Your task to perform on an android device: check google app version Image 0: 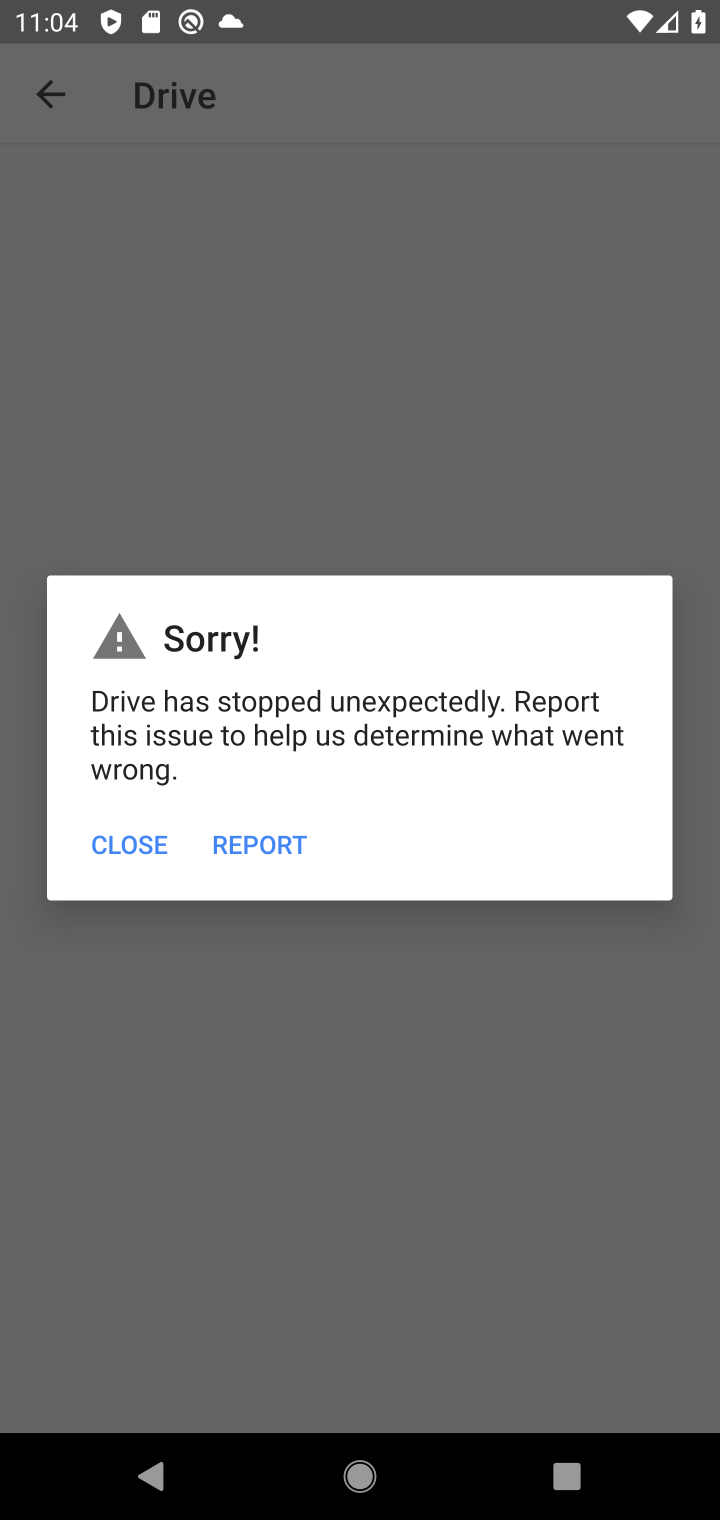
Step 0: press home button
Your task to perform on an android device: check google app version Image 1: 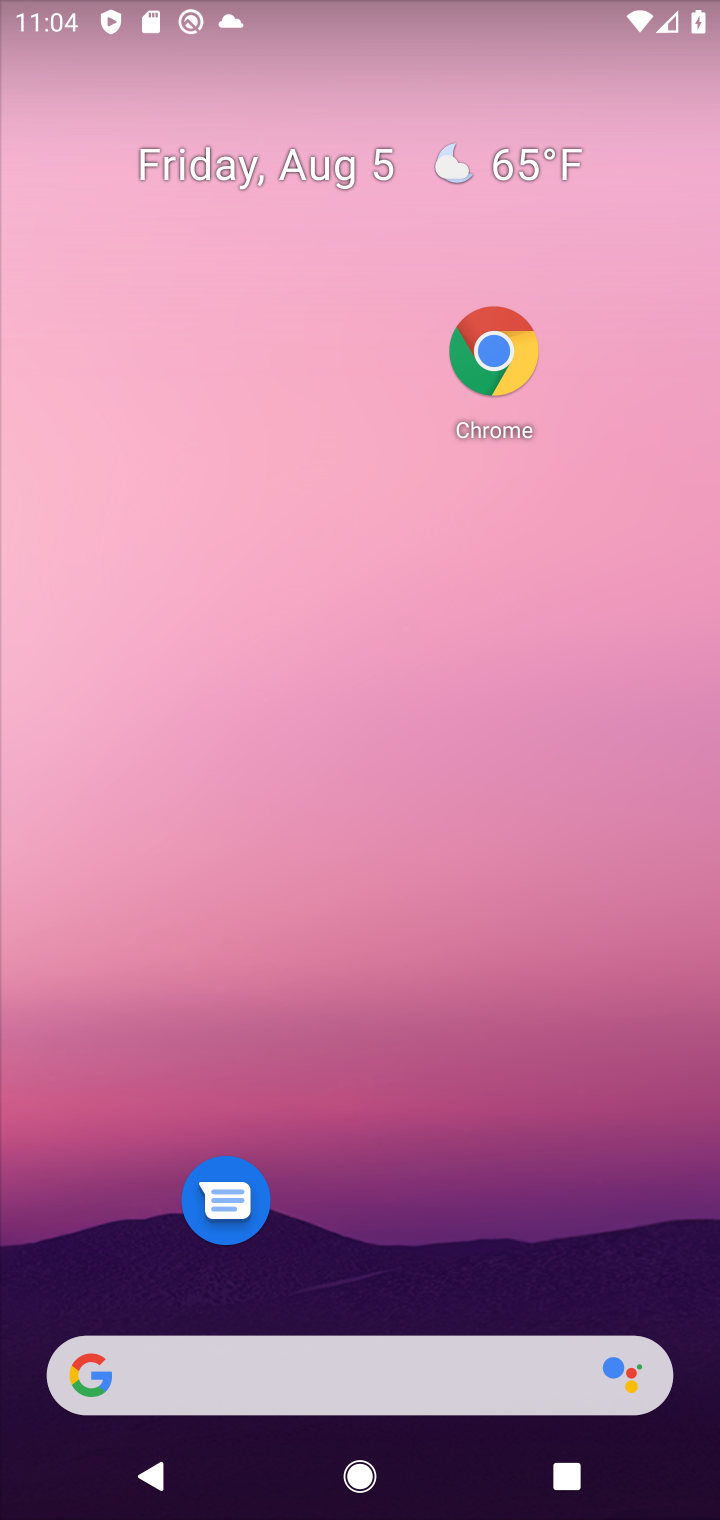
Step 1: drag from (414, 1326) to (486, 171)
Your task to perform on an android device: check google app version Image 2: 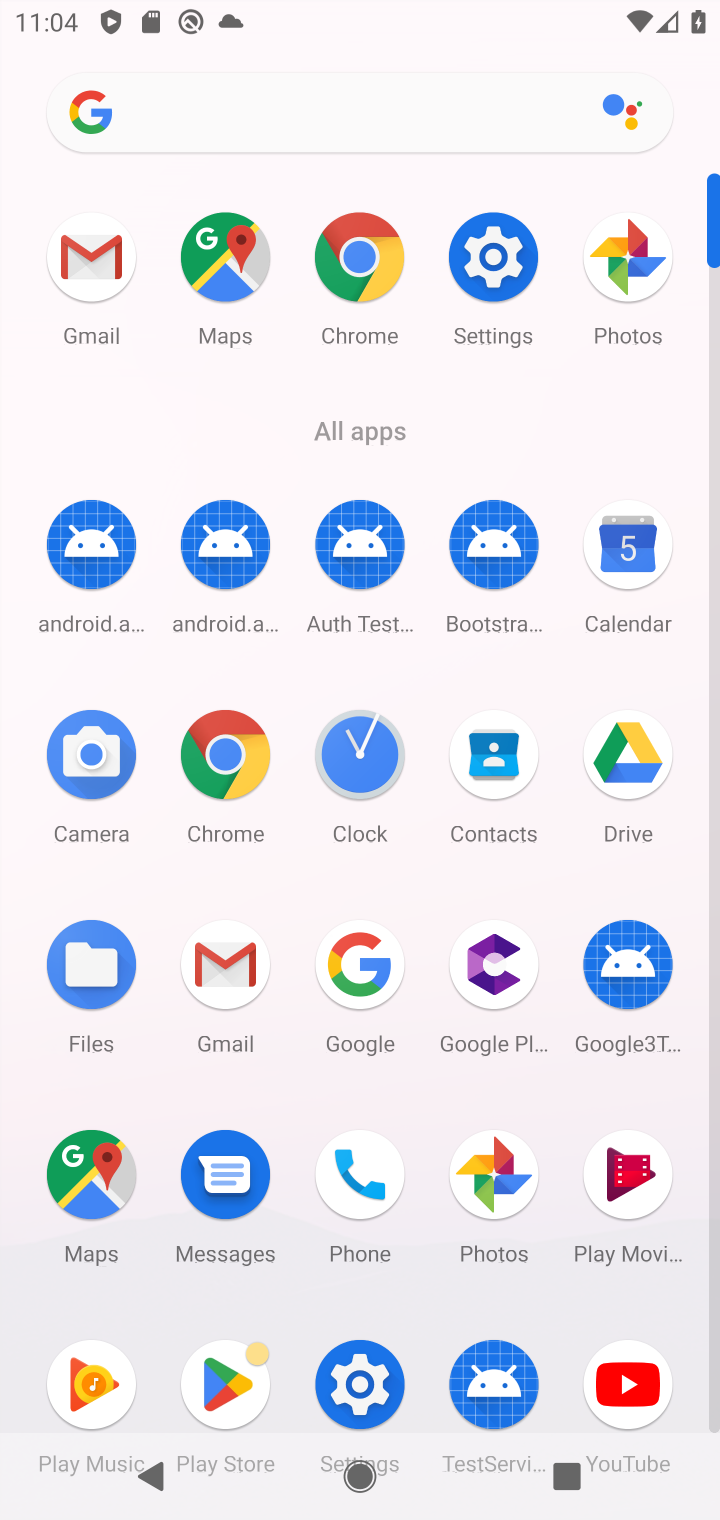
Step 2: click (472, 296)
Your task to perform on an android device: check google app version Image 3: 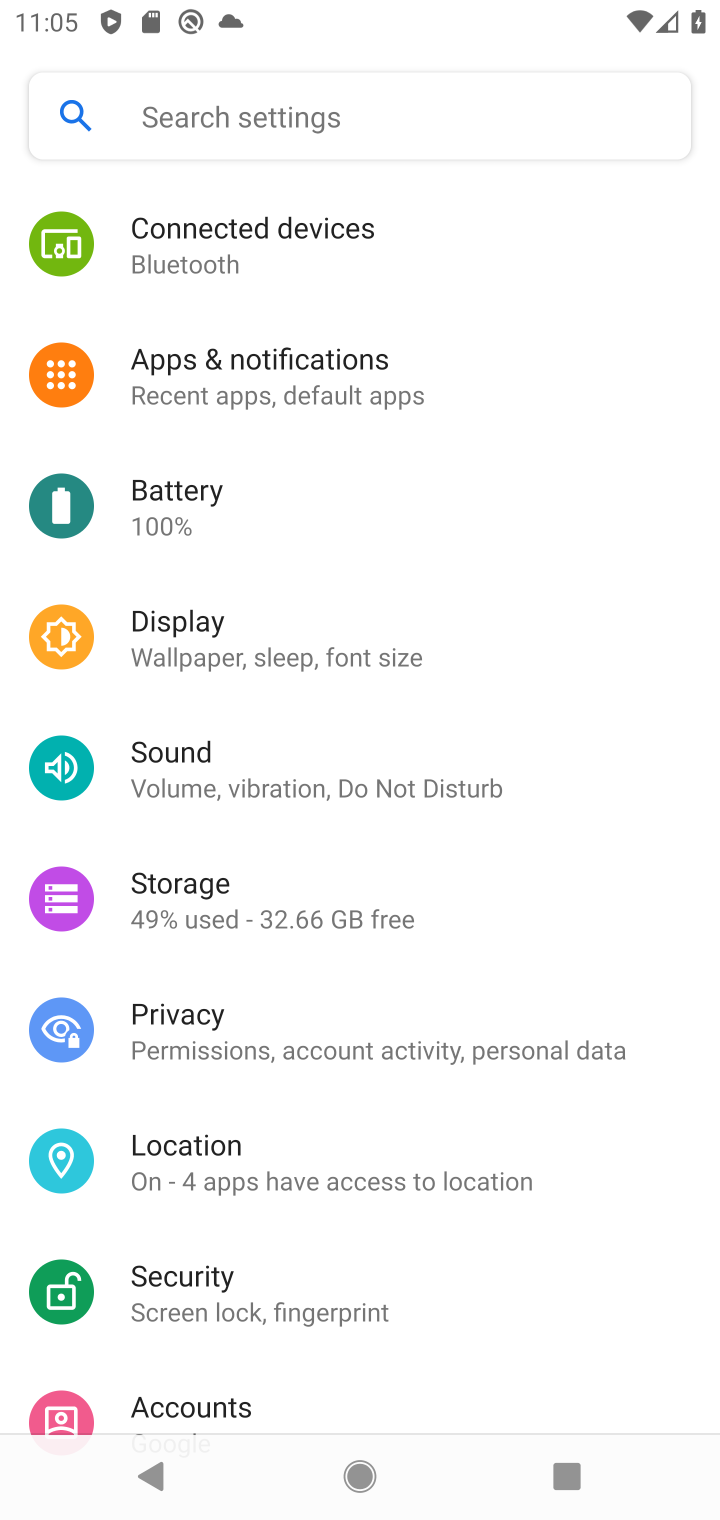
Step 3: drag from (306, 1100) to (383, 346)
Your task to perform on an android device: check google app version Image 4: 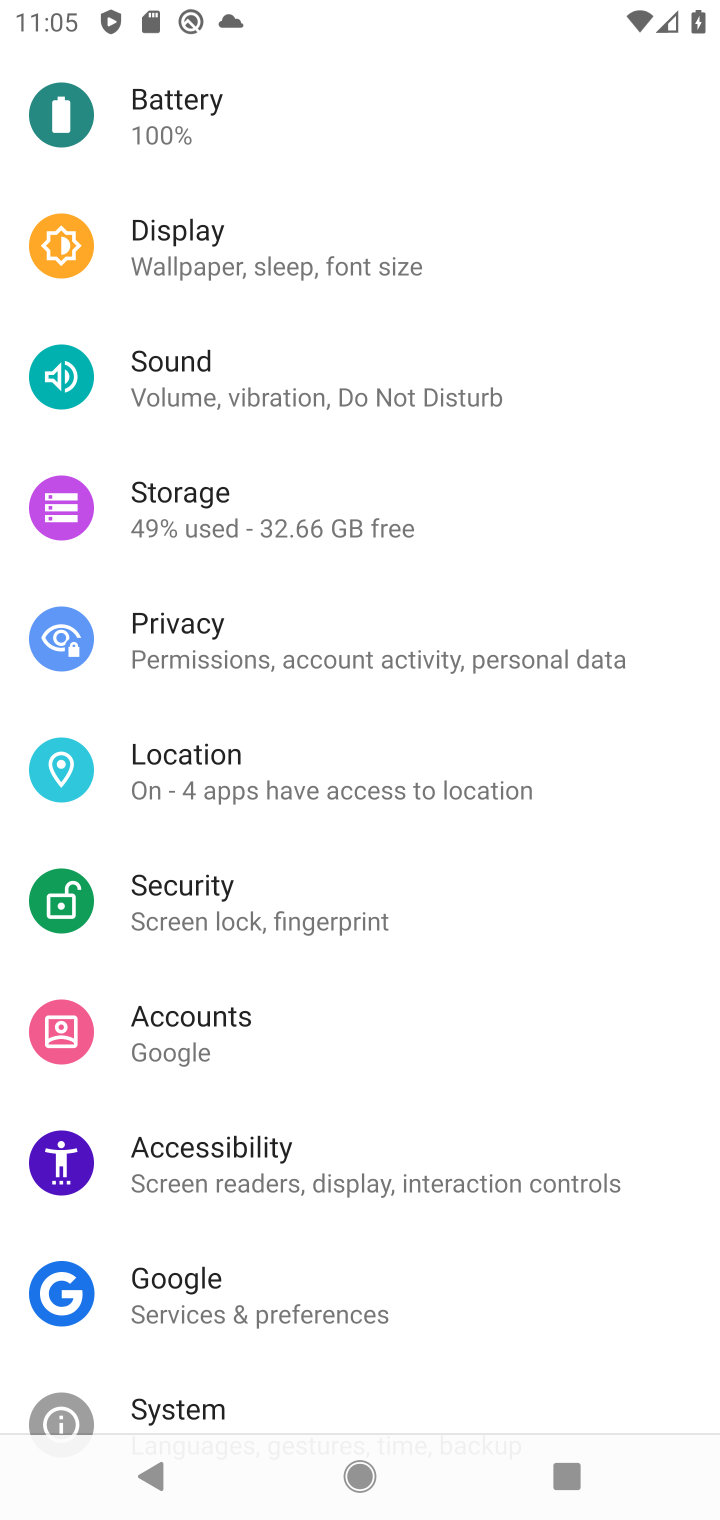
Step 4: press home button
Your task to perform on an android device: check google app version Image 5: 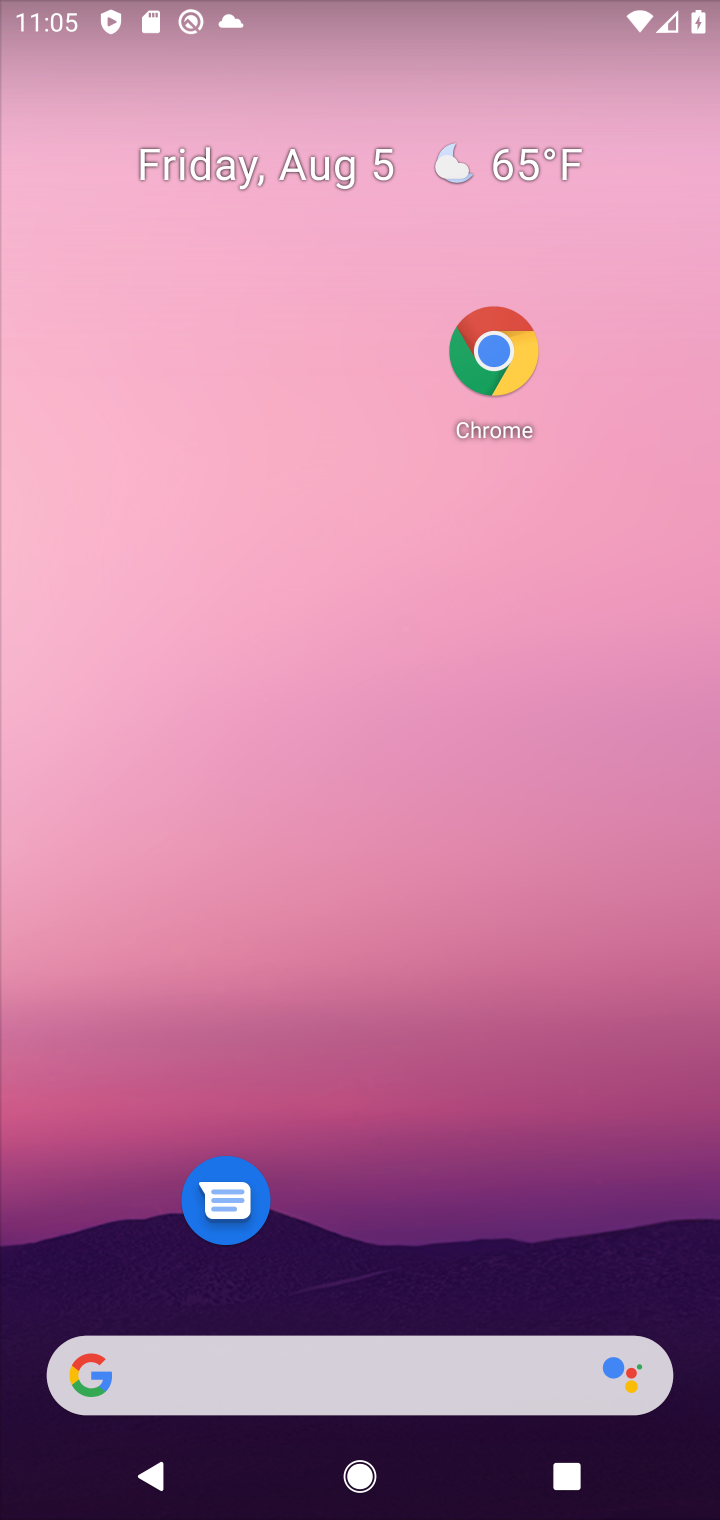
Step 5: drag from (250, 1342) to (438, 300)
Your task to perform on an android device: check google app version Image 6: 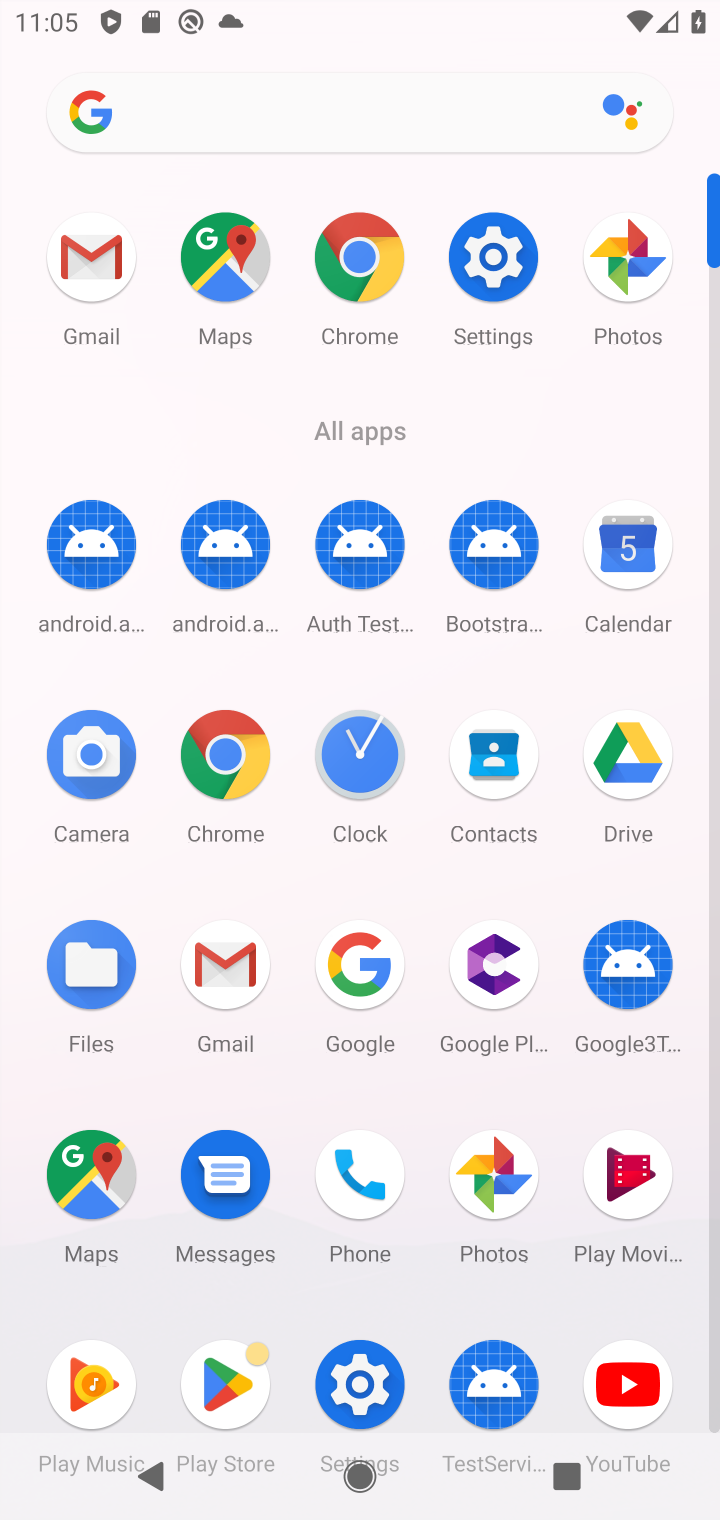
Step 6: click (362, 995)
Your task to perform on an android device: check google app version Image 7: 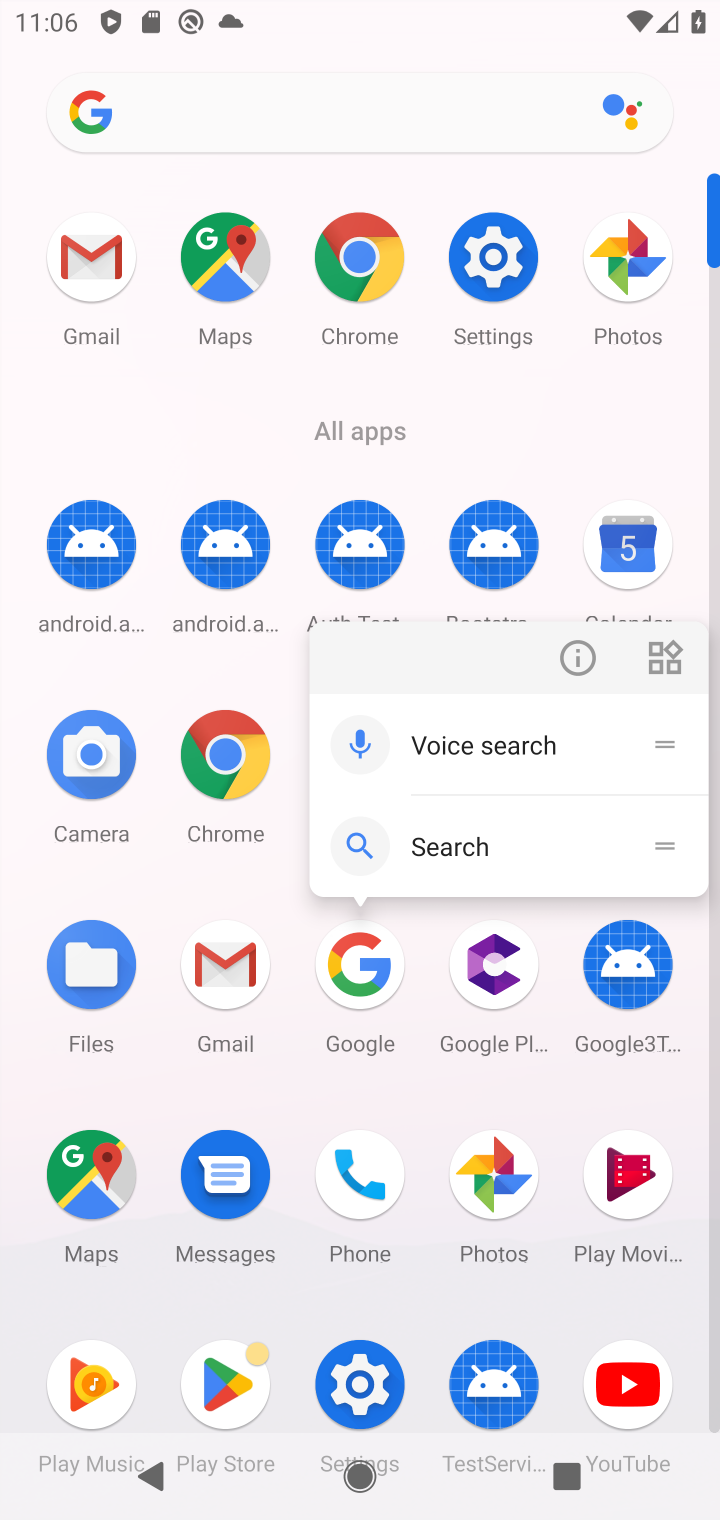
Step 7: click (354, 1022)
Your task to perform on an android device: check google app version Image 8: 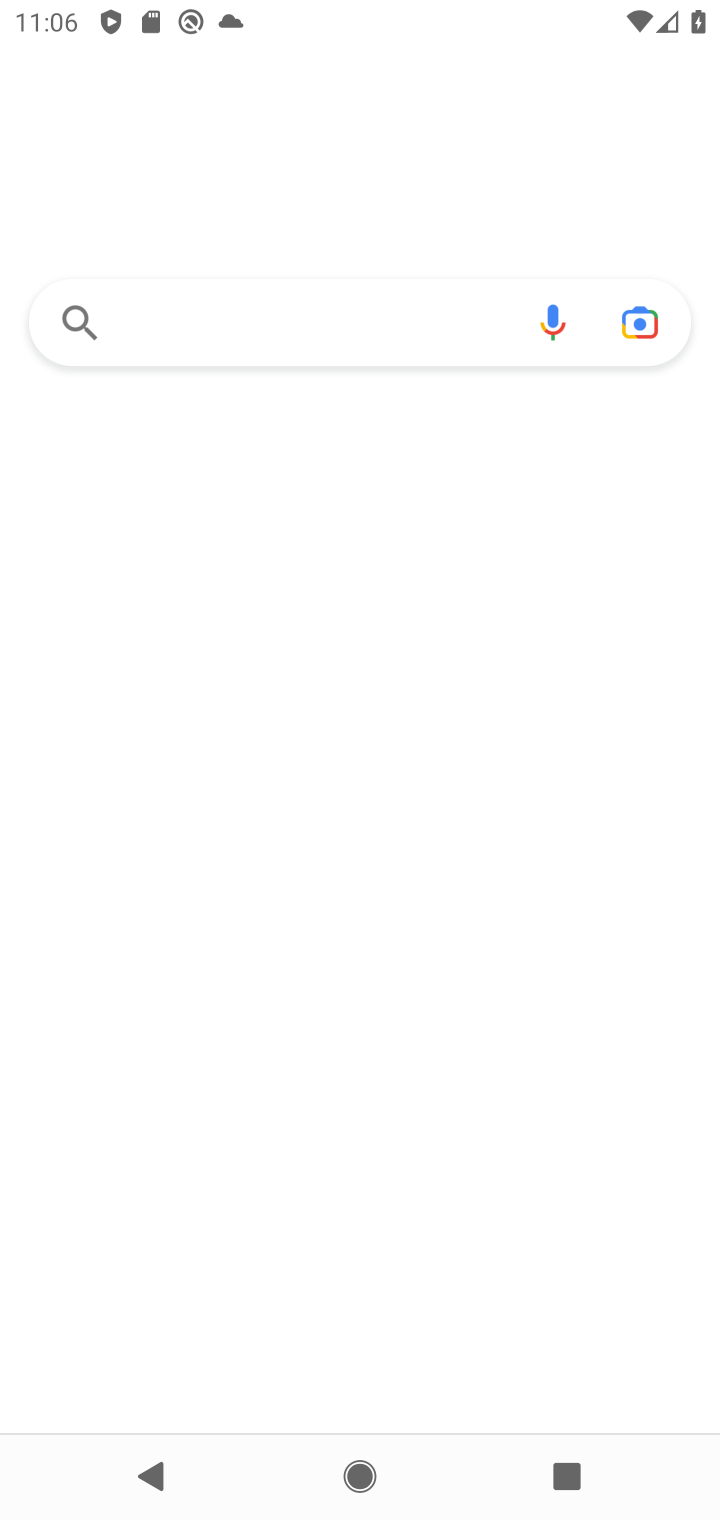
Step 8: click (344, 994)
Your task to perform on an android device: check google app version Image 9: 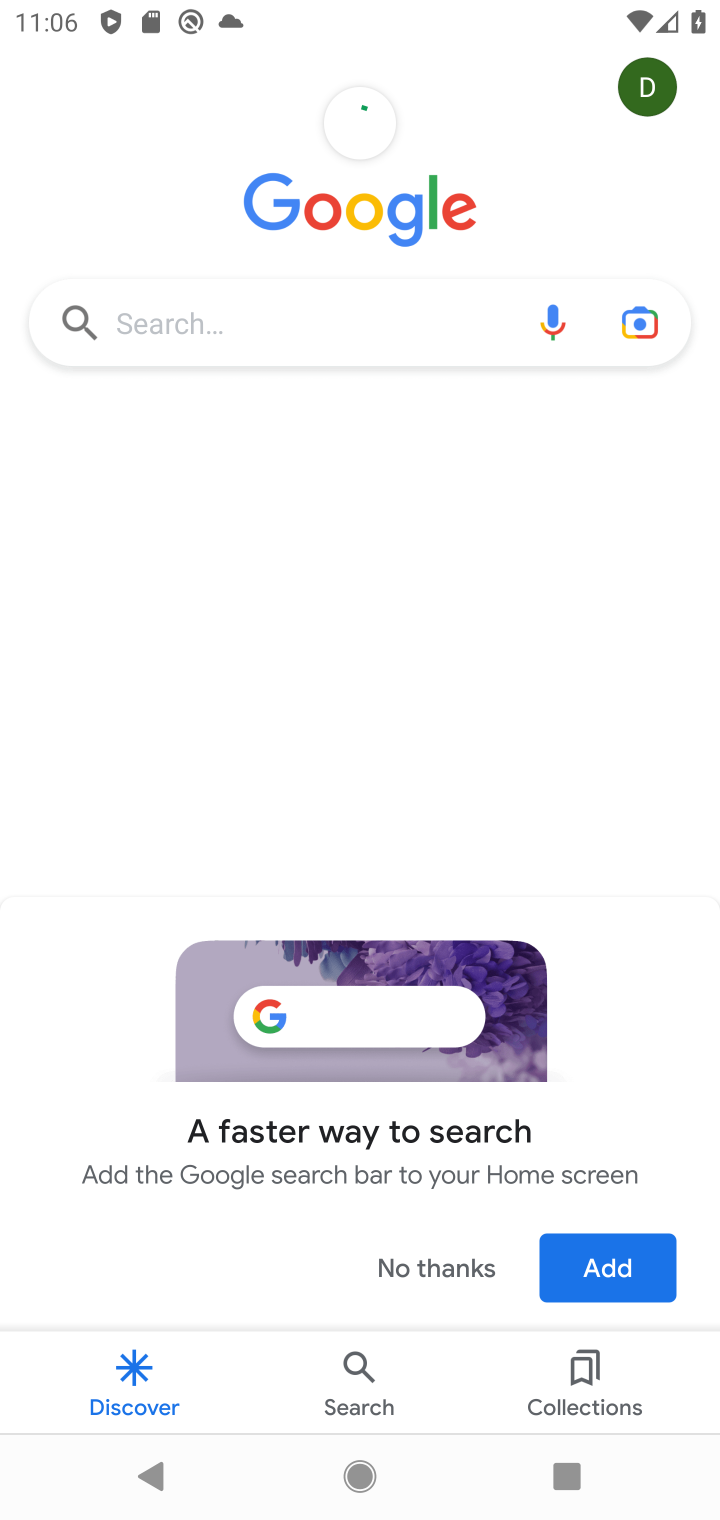
Step 9: click (646, 99)
Your task to perform on an android device: check google app version Image 10: 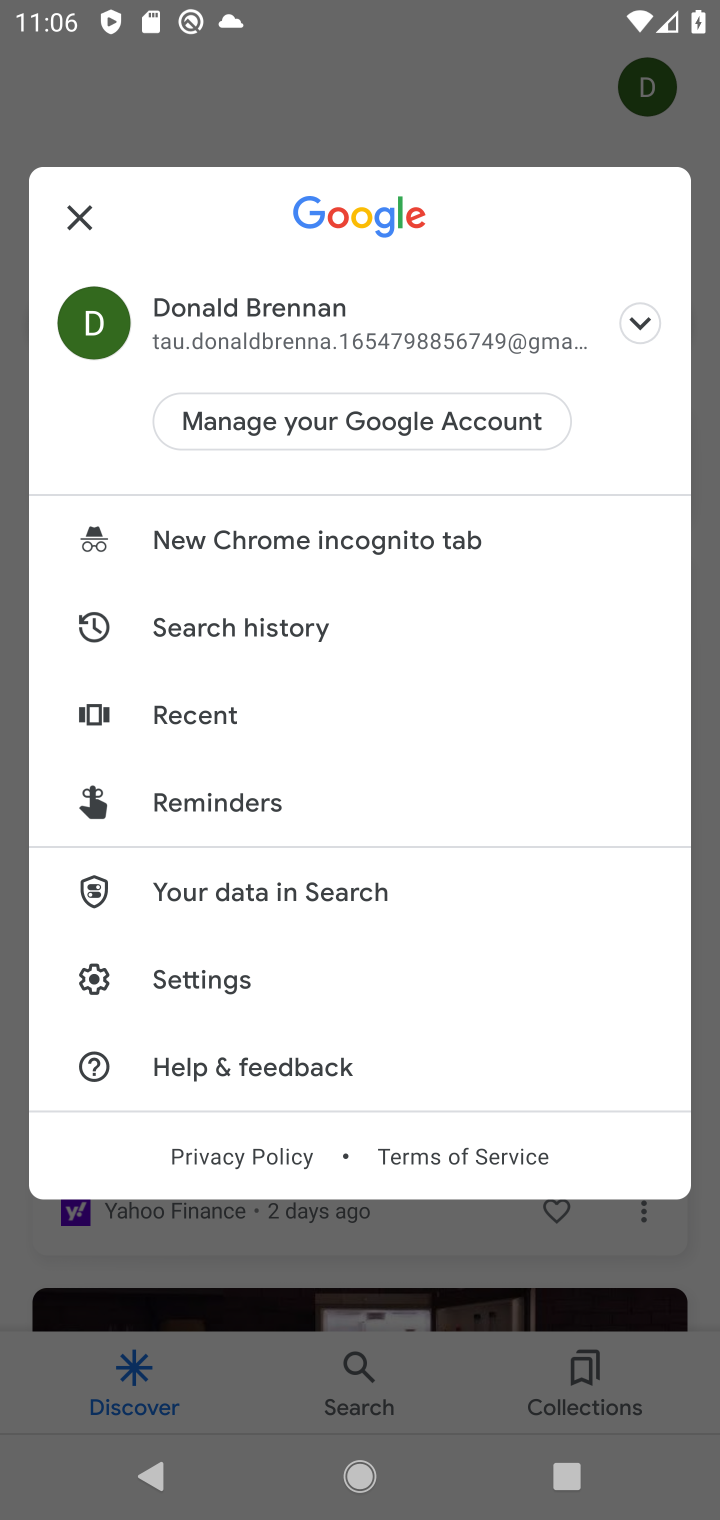
Step 10: click (232, 969)
Your task to perform on an android device: check google app version Image 11: 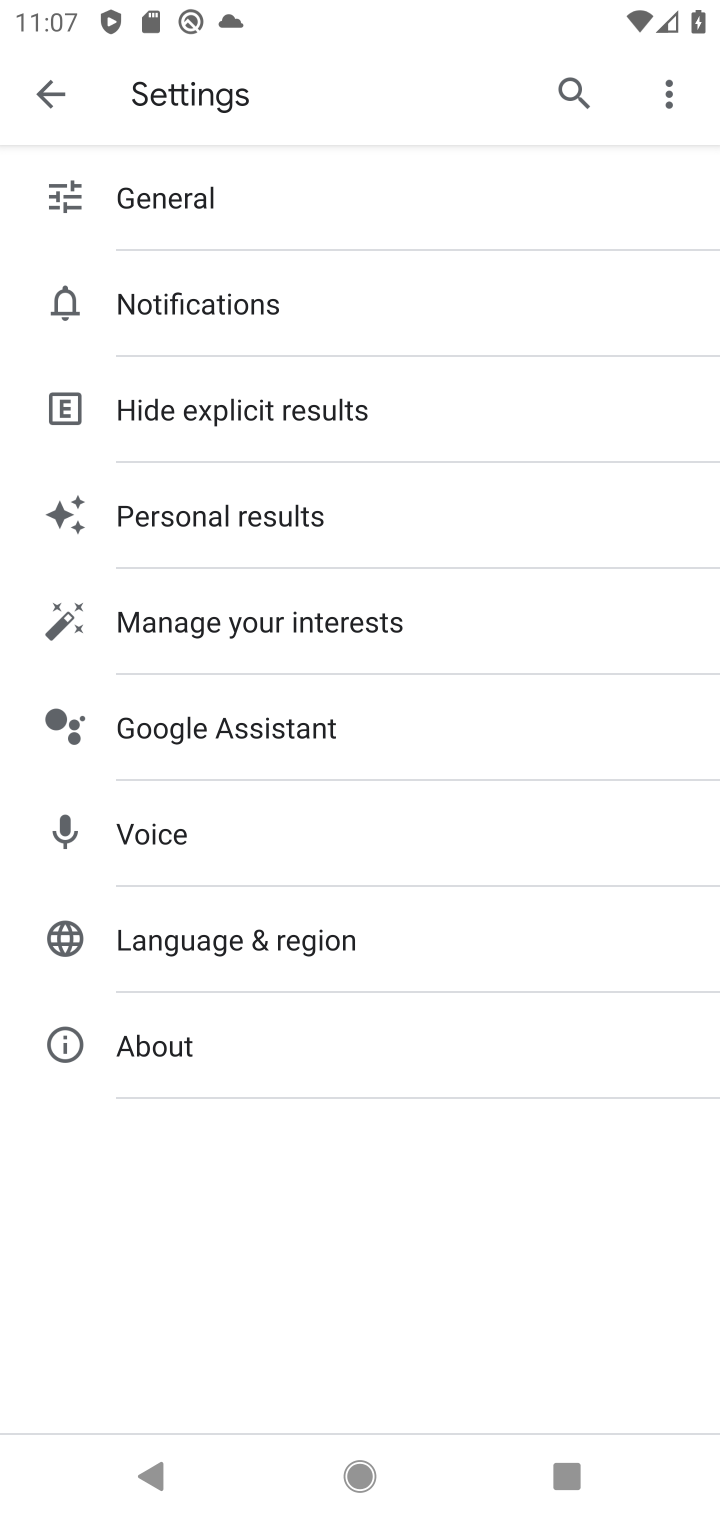
Step 11: click (241, 1041)
Your task to perform on an android device: check google app version Image 12: 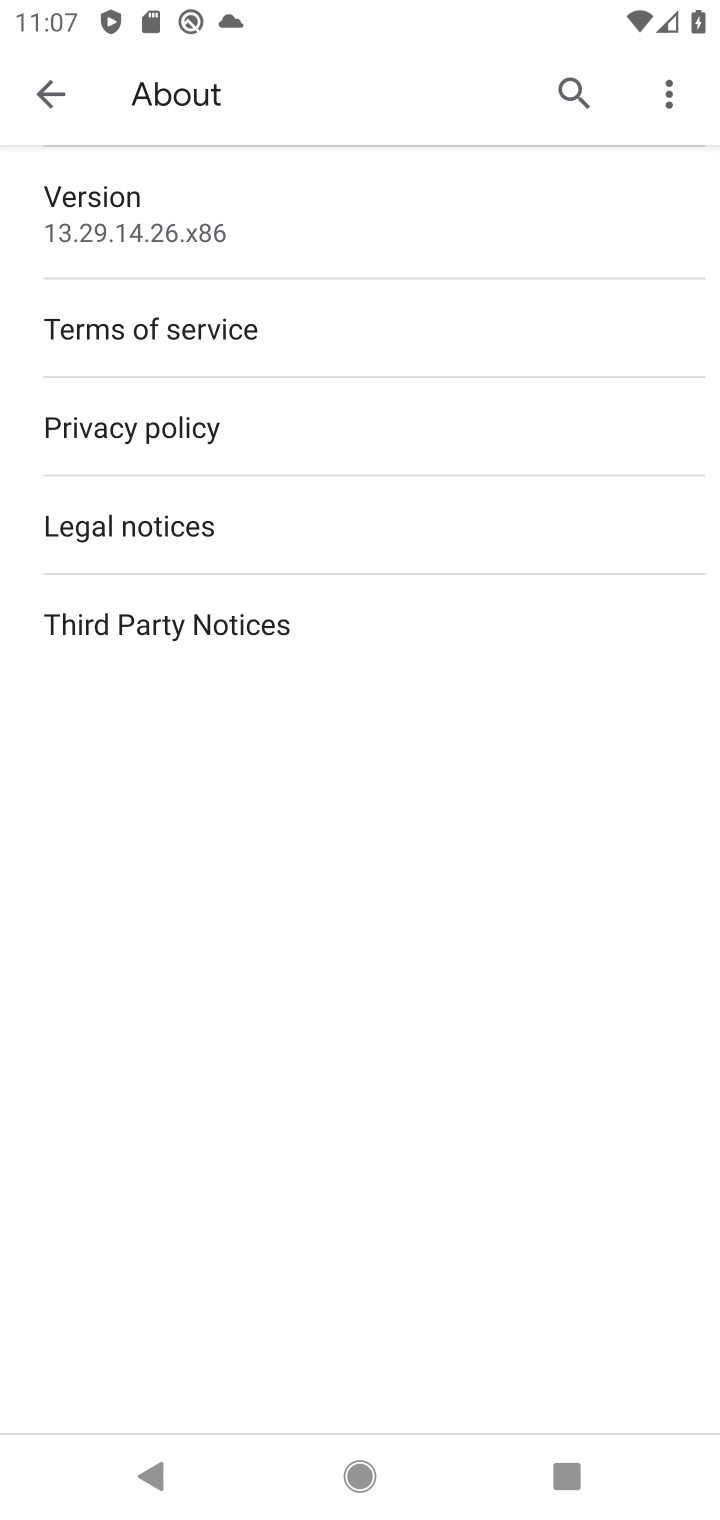
Step 12: click (180, 238)
Your task to perform on an android device: check google app version Image 13: 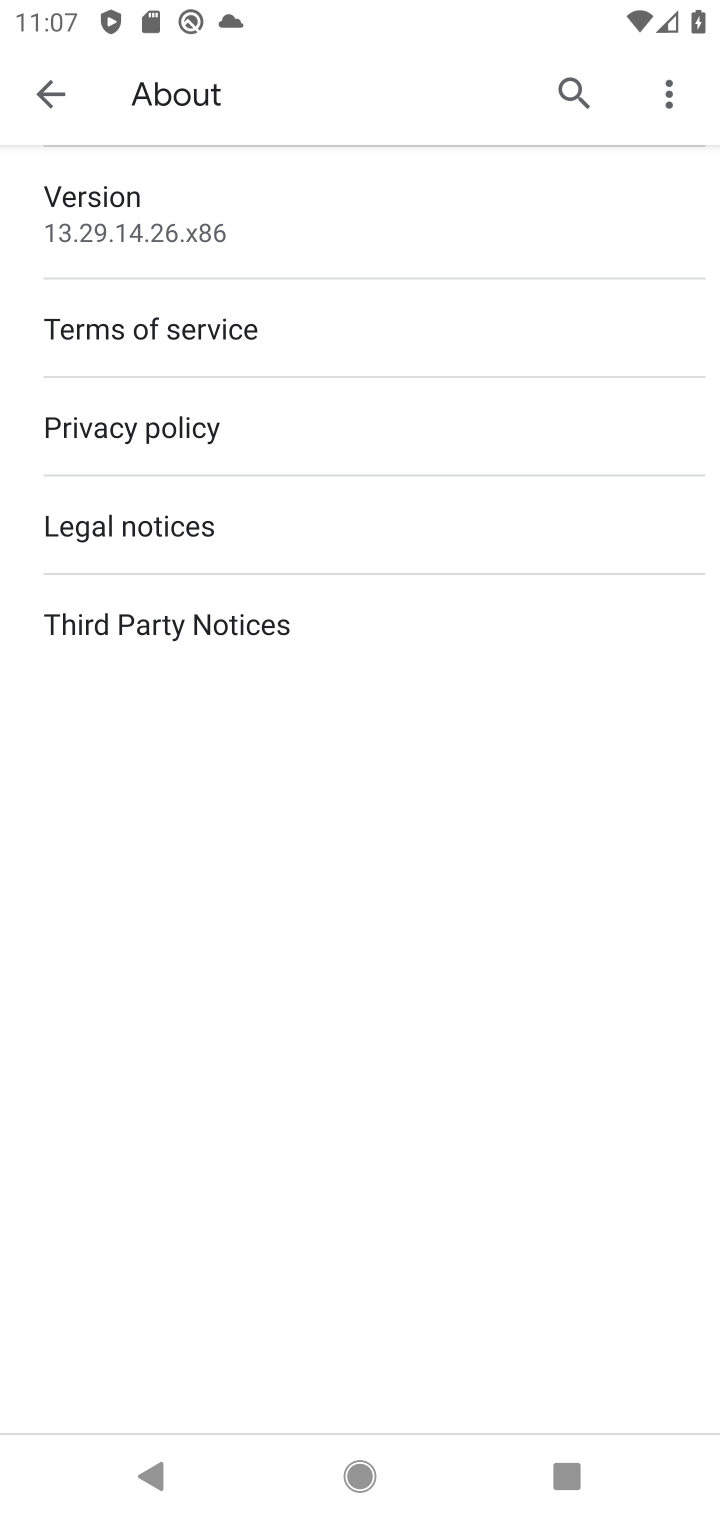
Step 13: click (193, 220)
Your task to perform on an android device: check google app version Image 14: 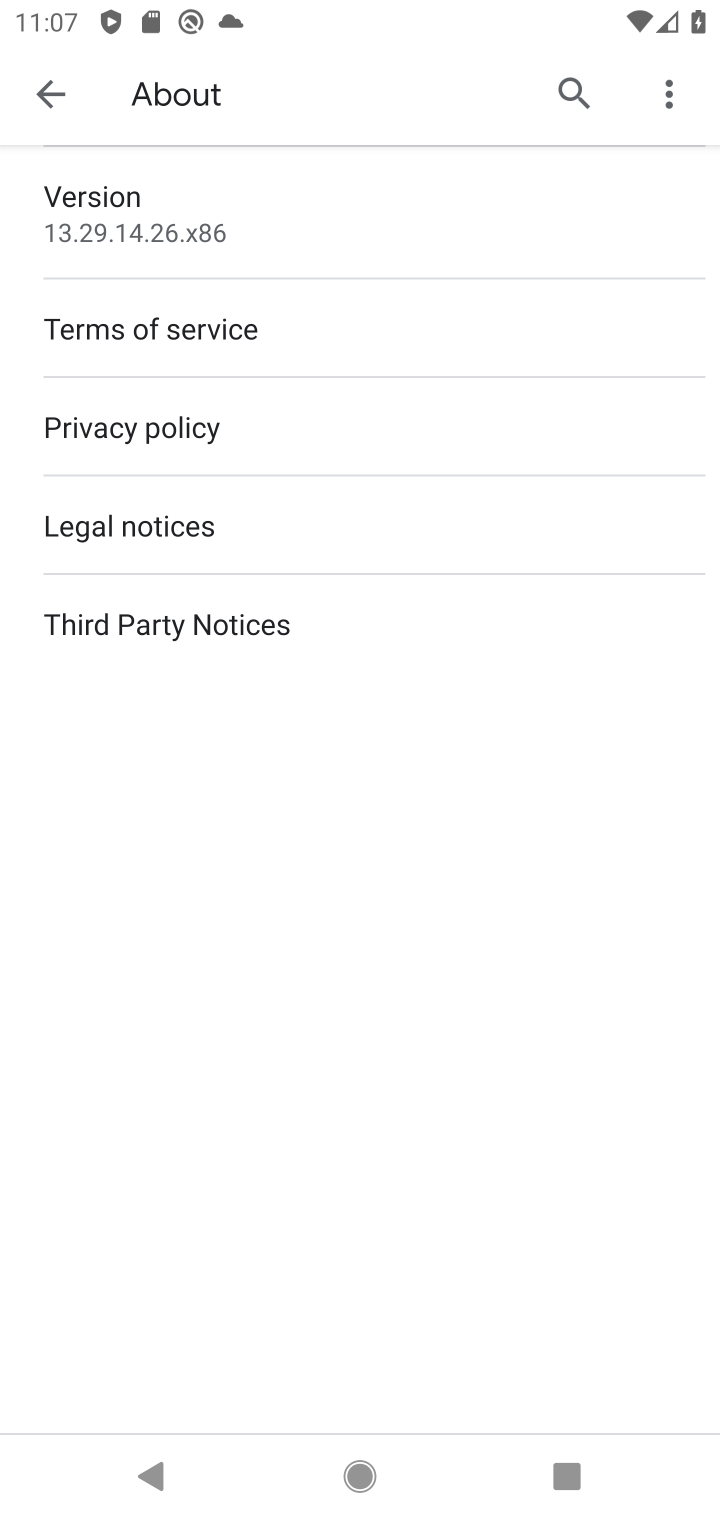
Step 14: click (131, 225)
Your task to perform on an android device: check google app version Image 15: 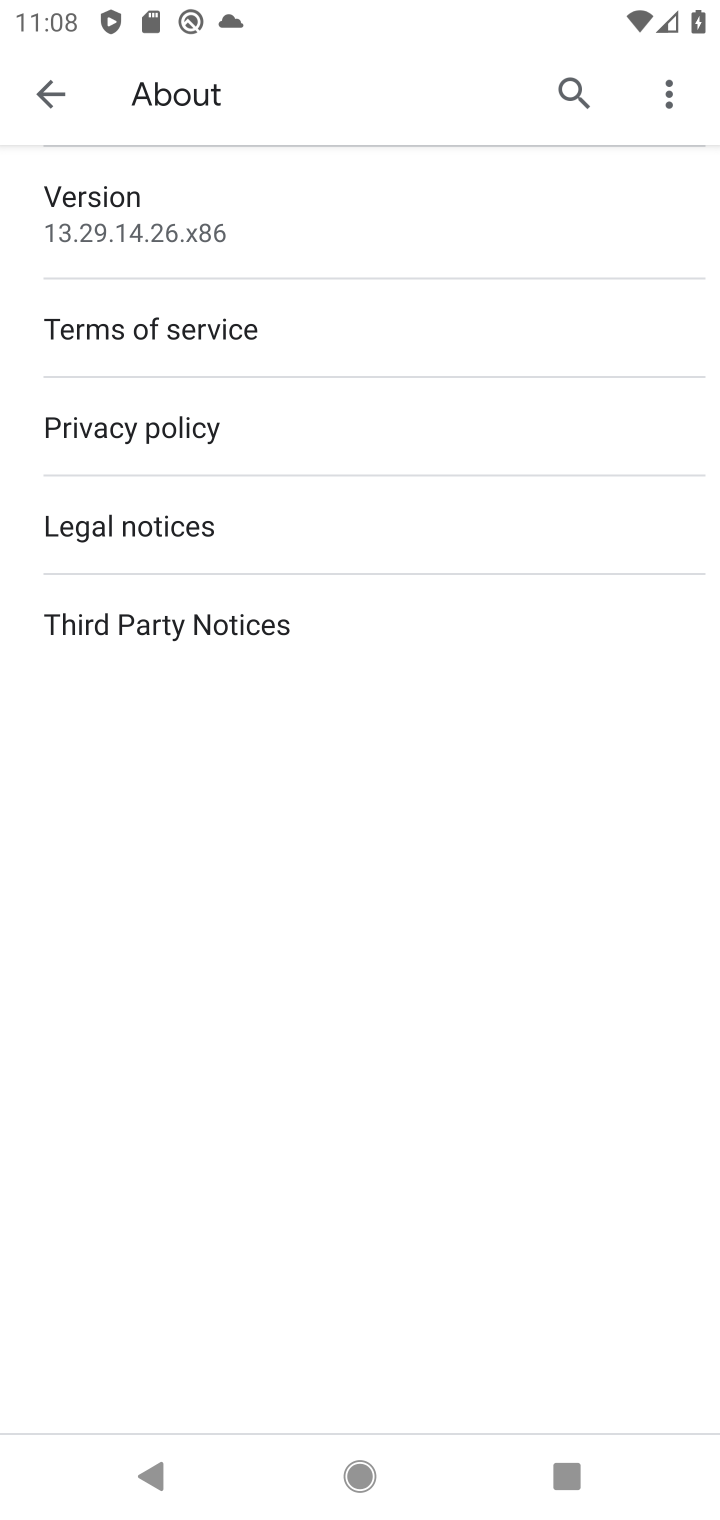
Step 15: task complete